Your task to perform on an android device: Play the last video I watched on Youtube Image 0: 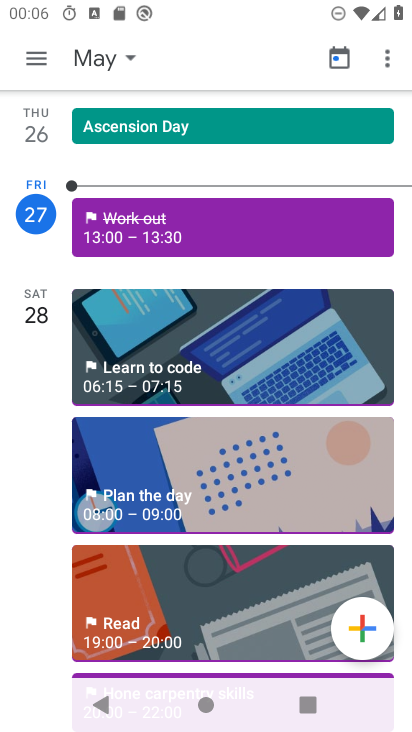
Step 0: press home button
Your task to perform on an android device: Play the last video I watched on Youtube Image 1: 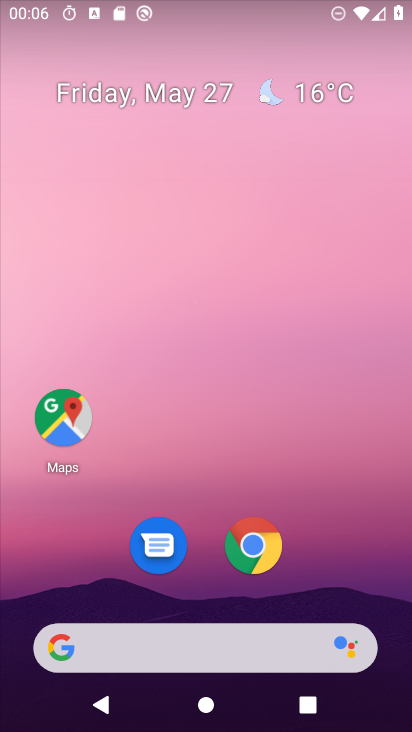
Step 1: drag from (316, 611) to (272, 78)
Your task to perform on an android device: Play the last video I watched on Youtube Image 2: 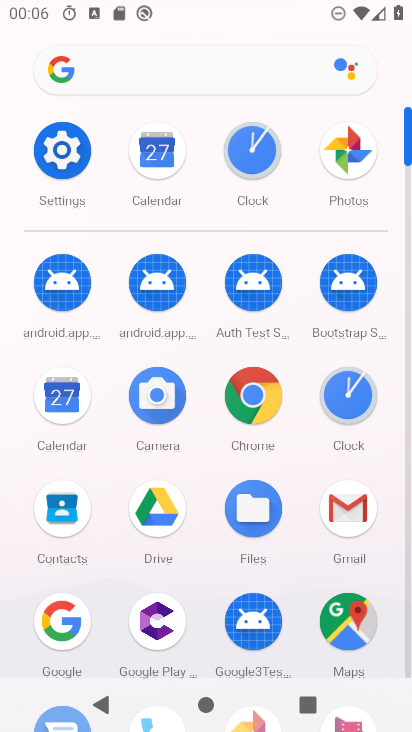
Step 2: drag from (387, 615) to (358, 196)
Your task to perform on an android device: Play the last video I watched on Youtube Image 3: 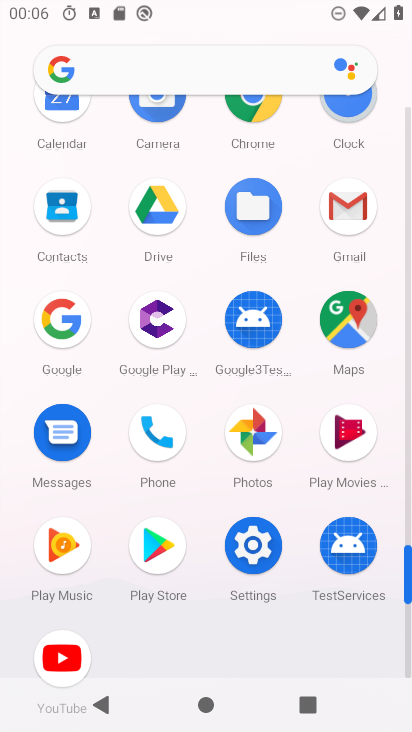
Step 3: click (60, 666)
Your task to perform on an android device: Play the last video I watched on Youtube Image 4: 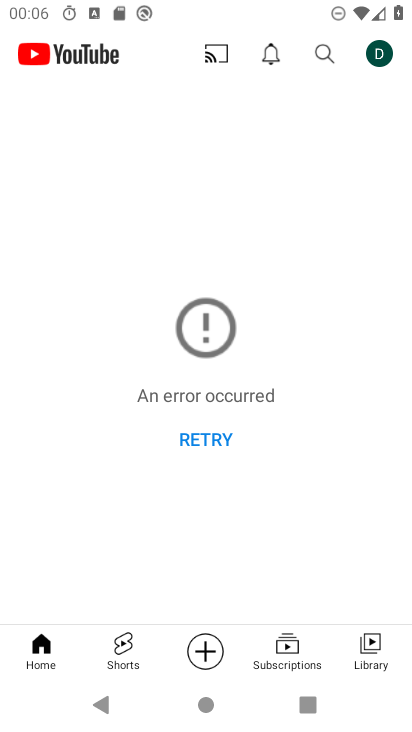
Step 4: click (201, 442)
Your task to perform on an android device: Play the last video I watched on Youtube Image 5: 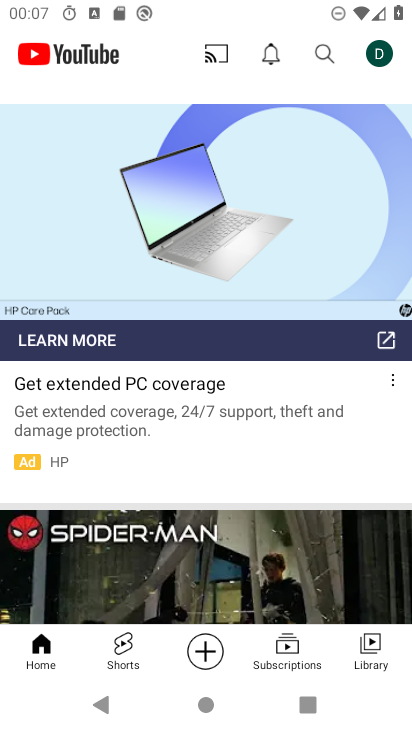
Step 5: click (368, 647)
Your task to perform on an android device: Play the last video I watched on Youtube Image 6: 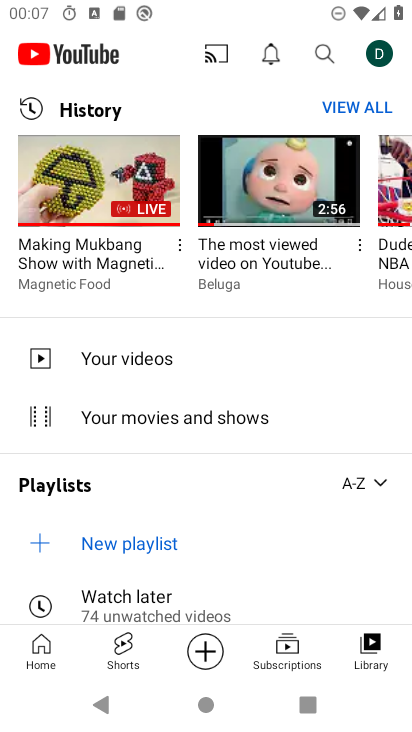
Step 6: click (96, 168)
Your task to perform on an android device: Play the last video I watched on Youtube Image 7: 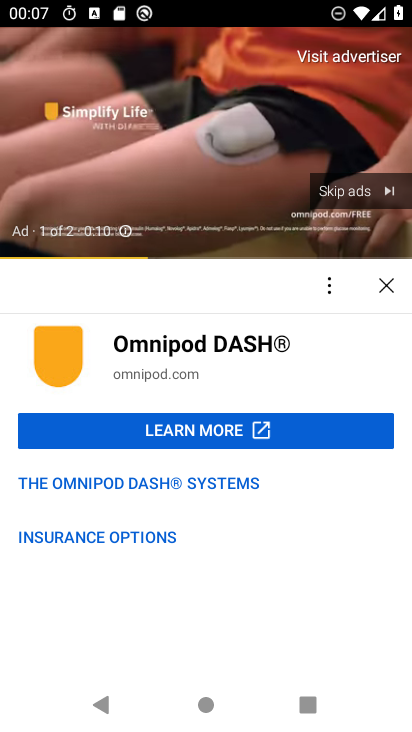
Step 7: click (347, 195)
Your task to perform on an android device: Play the last video I watched on Youtube Image 8: 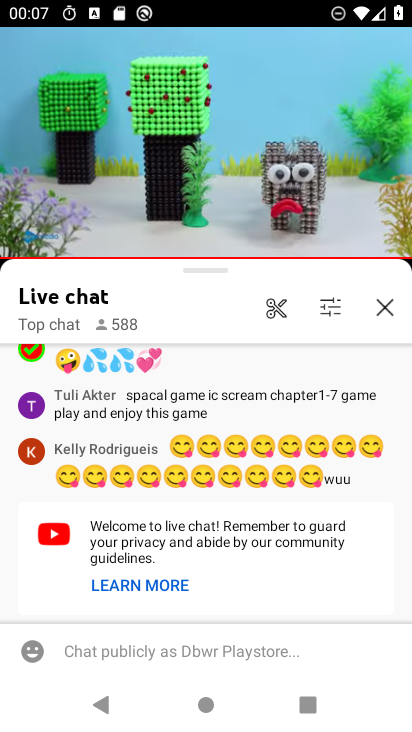
Step 8: task complete